Your task to perform on an android device: toggle sleep mode Image 0: 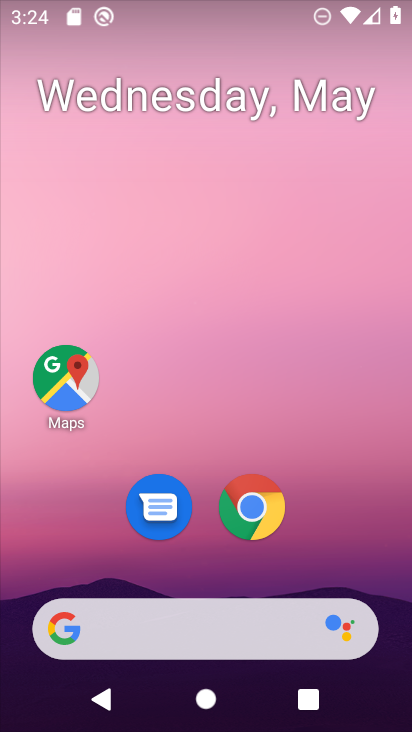
Step 0: drag from (221, 517) to (324, 0)
Your task to perform on an android device: toggle sleep mode Image 1: 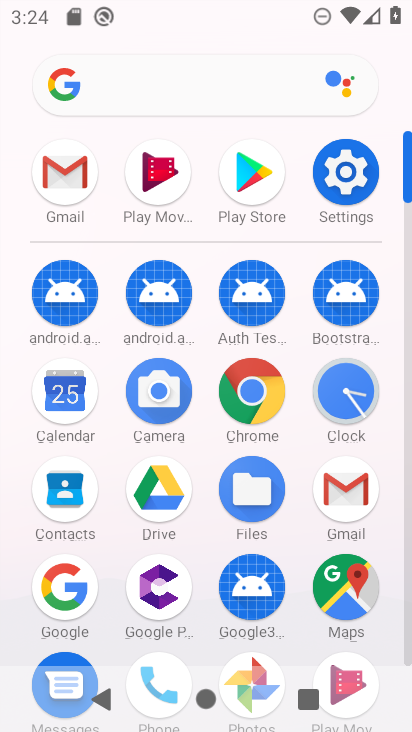
Step 1: click (344, 189)
Your task to perform on an android device: toggle sleep mode Image 2: 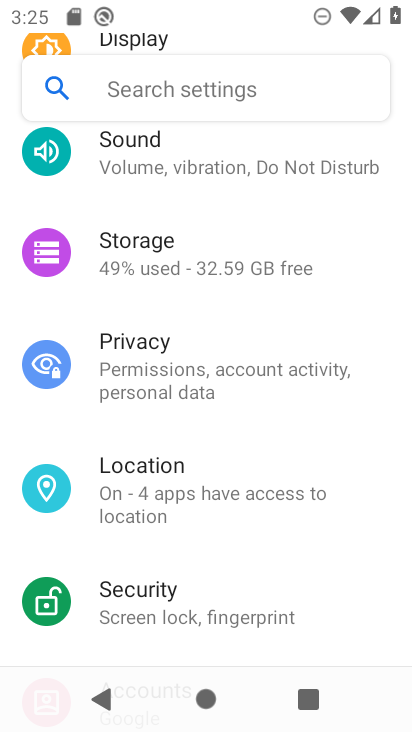
Step 2: click (202, 93)
Your task to perform on an android device: toggle sleep mode Image 3: 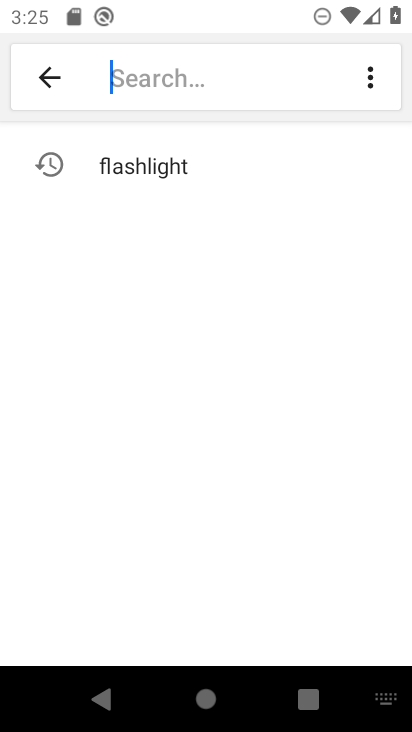
Step 3: type "sleep mode"
Your task to perform on an android device: toggle sleep mode Image 4: 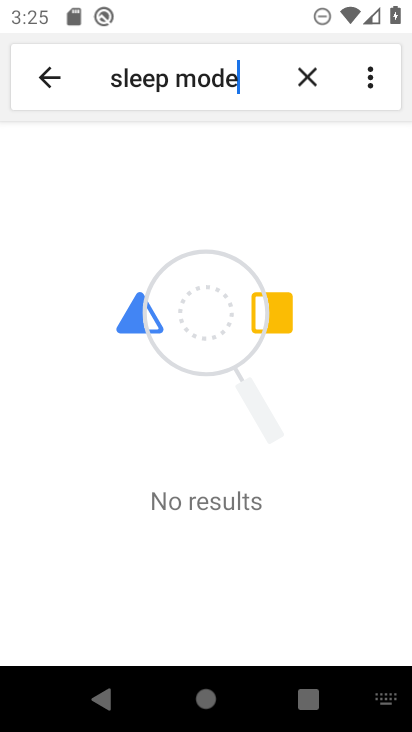
Step 4: task complete